Your task to perform on an android device: Turn off the flashlight Image 0: 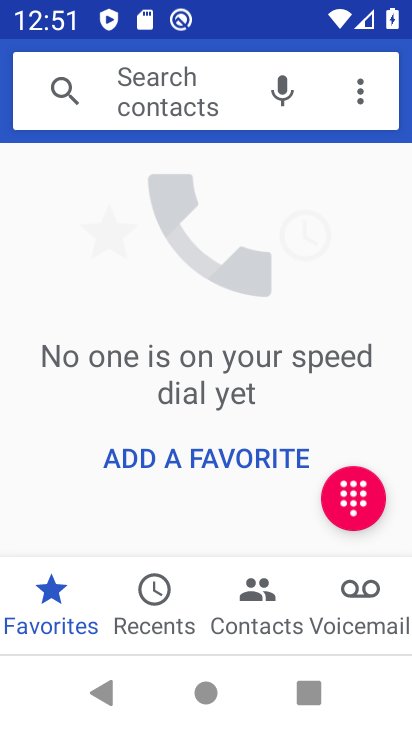
Step 0: press home button
Your task to perform on an android device: Turn off the flashlight Image 1: 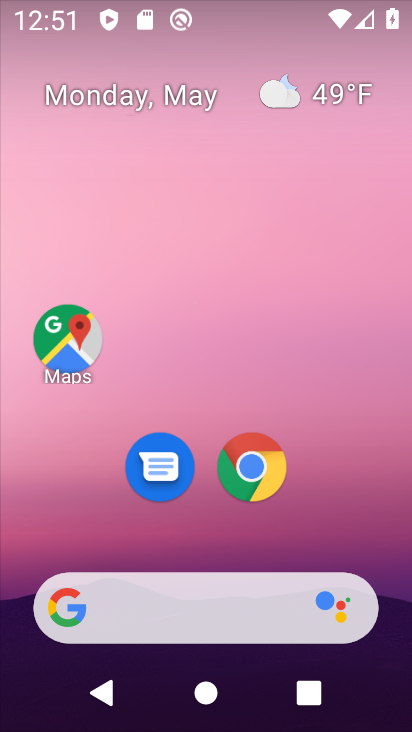
Step 1: drag from (393, 506) to (326, 88)
Your task to perform on an android device: Turn off the flashlight Image 2: 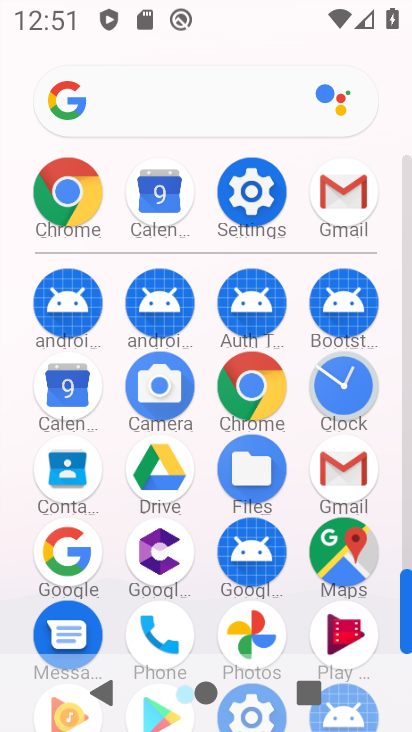
Step 2: drag from (386, 618) to (376, 326)
Your task to perform on an android device: Turn off the flashlight Image 3: 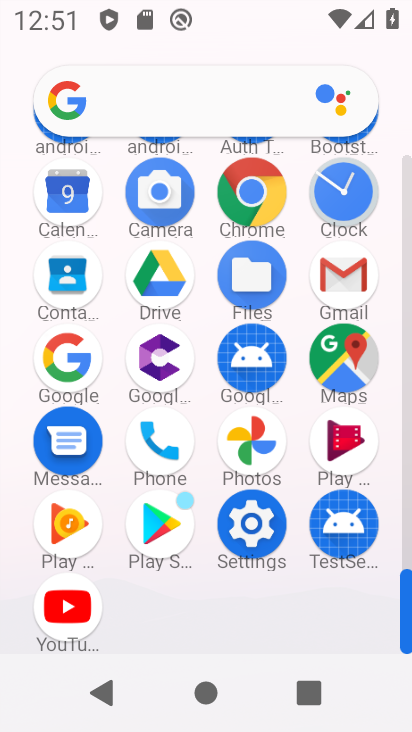
Step 3: click (246, 547)
Your task to perform on an android device: Turn off the flashlight Image 4: 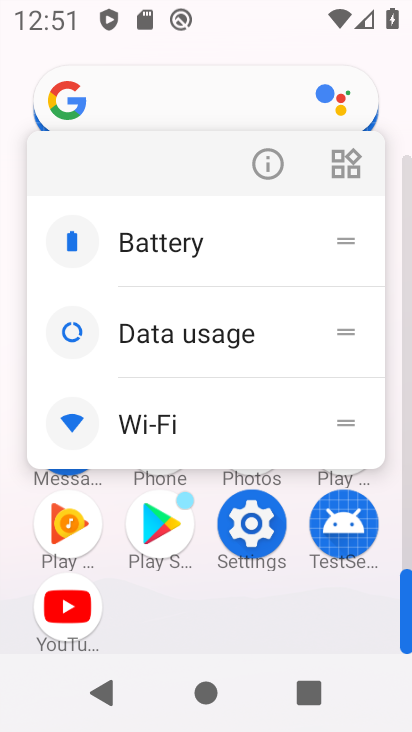
Step 4: click (268, 529)
Your task to perform on an android device: Turn off the flashlight Image 5: 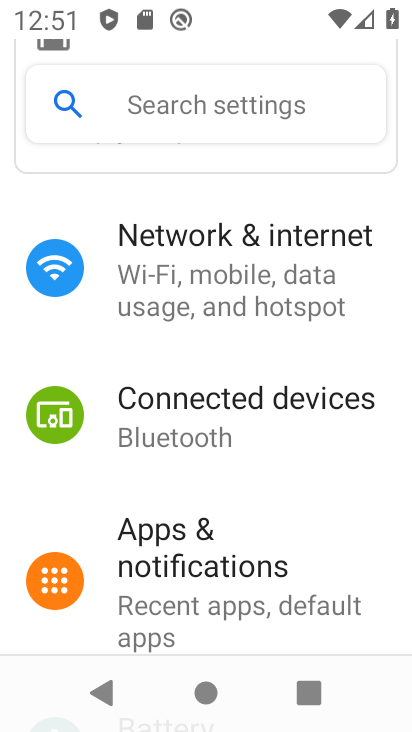
Step 5: click (162, 110)
Your task to perform on an android device: Turn off the flashlight Image 6: 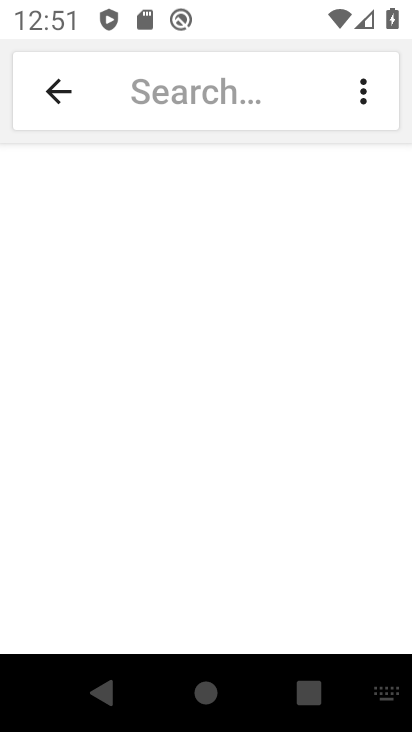
Step 6: type "flashlight"
Your task to perform on an android device: Turn off the flashlight Image 7: 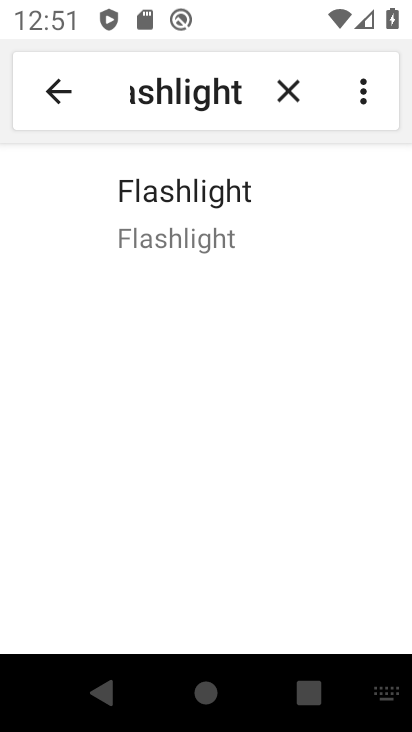
Step 7: click (225, 244)
Your task to perform on an android device: Turn off the flashlight Image 8: 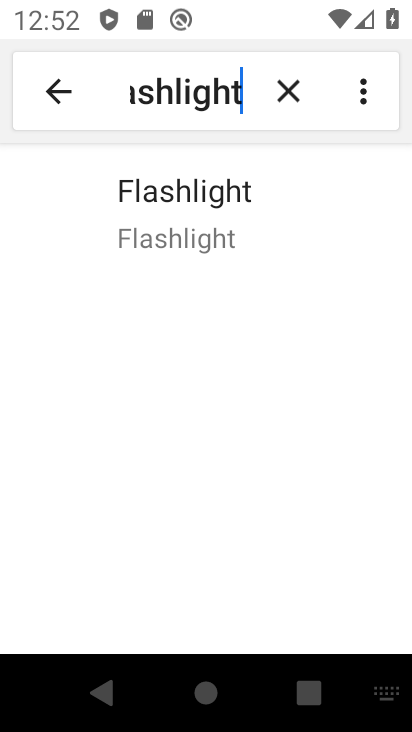
Step 8: click (220, 245)
Your task to perform on an android device: Turn off the flashlight Image 9: 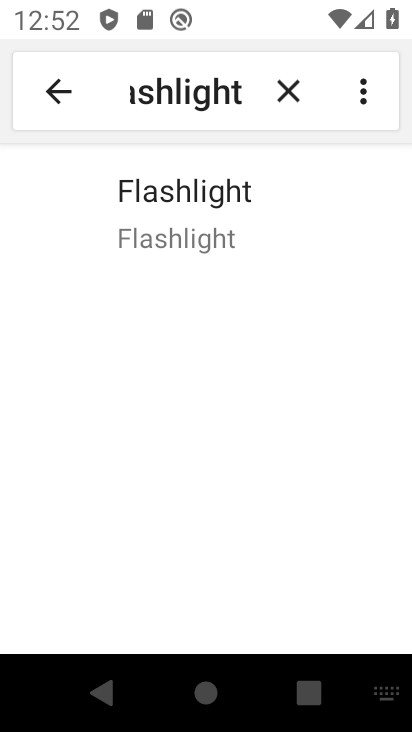
Step 9: task complete